Your task to perform on an android device: turn notification dots on Image 0: 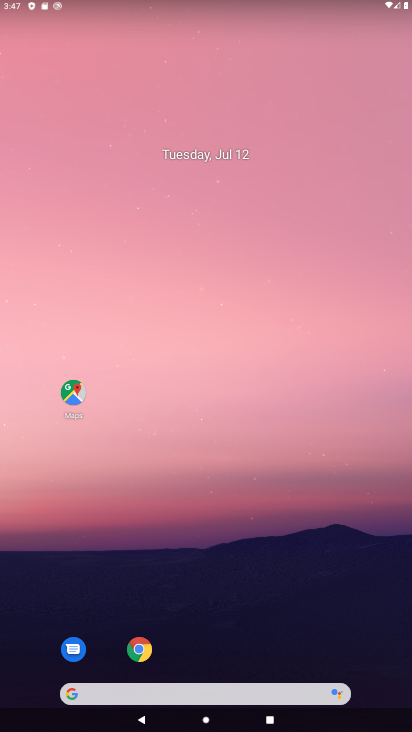
Step 0: drag from (226, 661) to (271, 70)
Your task to perform on an android device: turn notification dots on Image 1: 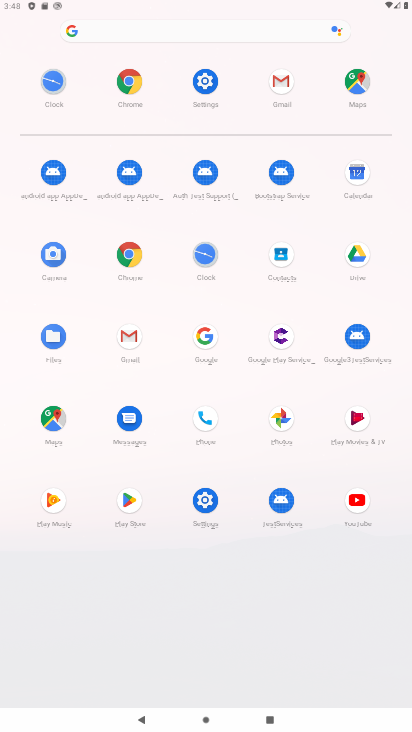
Step 1: click (205, 491)
Your task to perform on an android device: turn notification dots on Image 2: 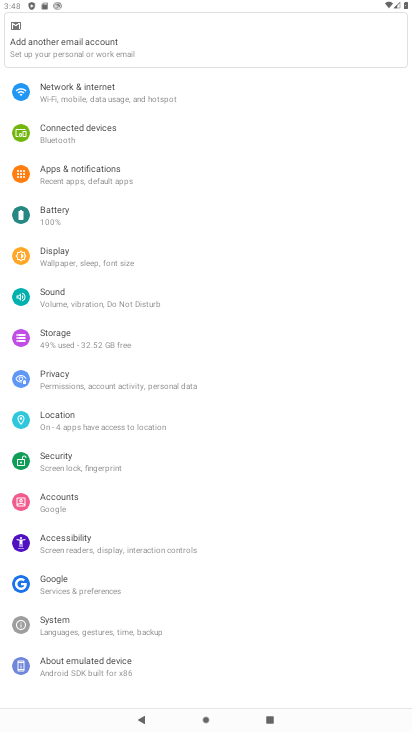
Step 2: click (141, 170)
Your task to perform on an android device: turn notification dots on Image 3: 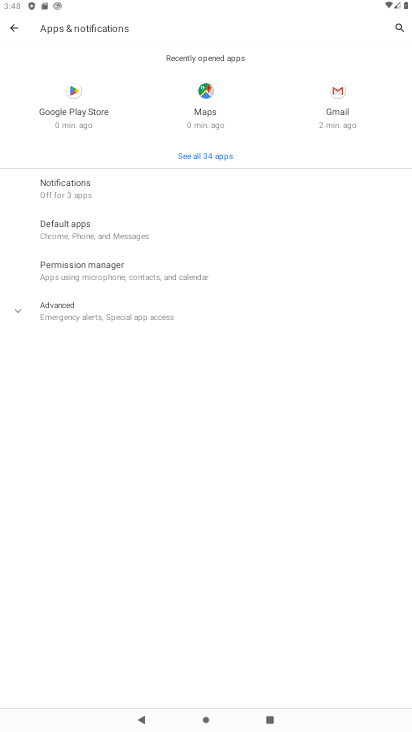
Step 3: click (99, 183)
Your task to perform on an android device: turn notification dots on Image 4: 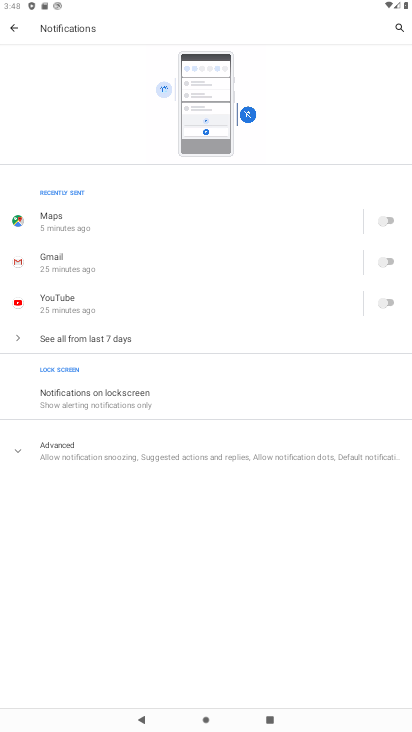
Step 4: click (18, 449)
Your task to perform on an android device: turn notification dots on Image 5: 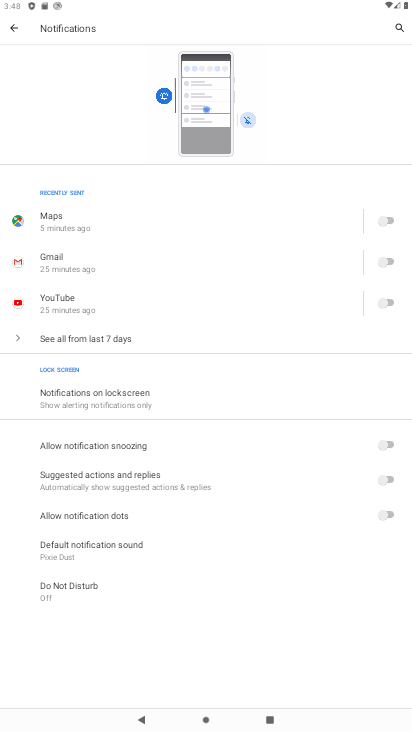
Step 5: click (384, 508)
Your task to perform on an android device: turn notification dots on Image 6: 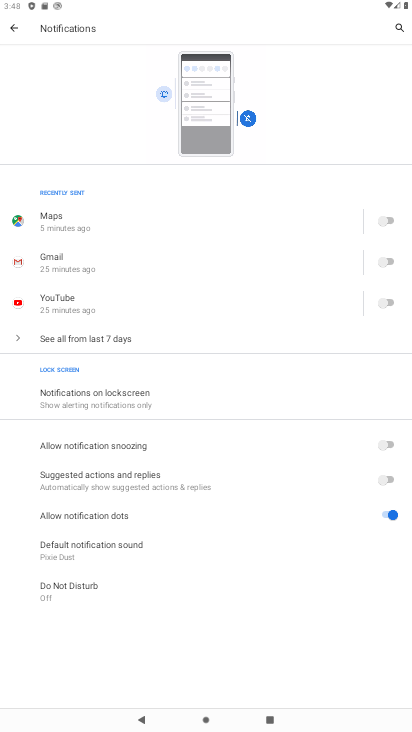
Step 6: task complete